Your task to perform on an android device: uninstall "Google Find My Device" Image 0: 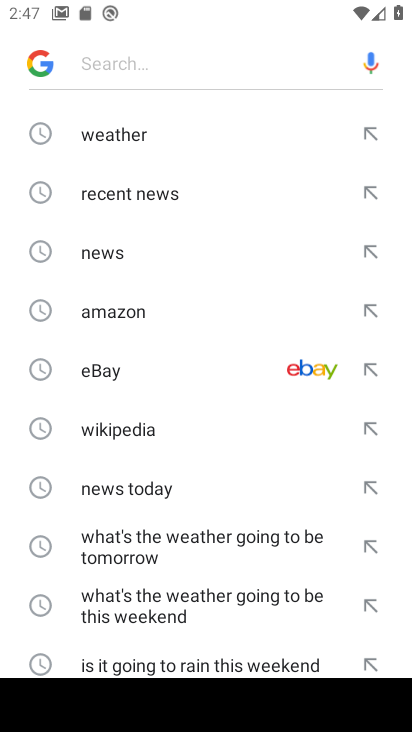
Step 0: press back button
Your task to perform on an android device: uninstall "Google Find My Device" Image 1: 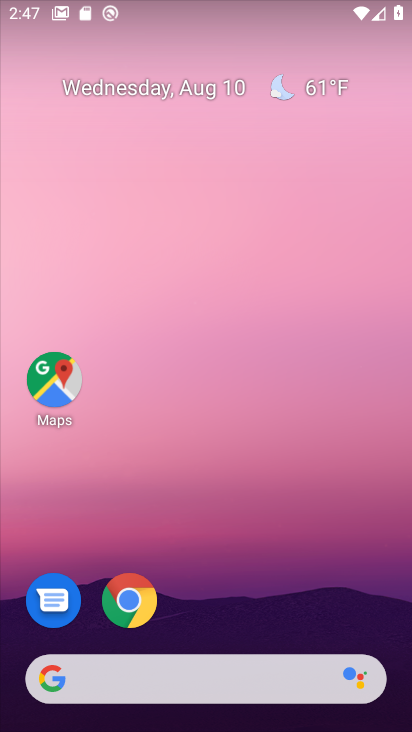
Step 1: drag from (246, 610) to (267, 63)
Your task to perform on an android device: uninstall "Google Find My Device" Image 2: 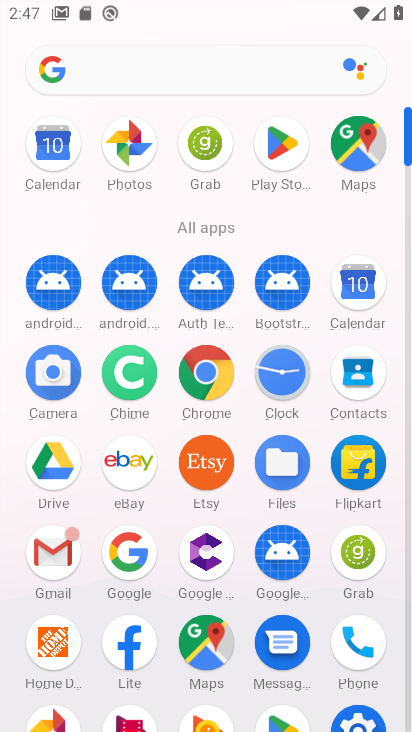
Step 2: click (272, 140)
Your task to perform on an android device: uninstall "Google Find My Device" Image 3: 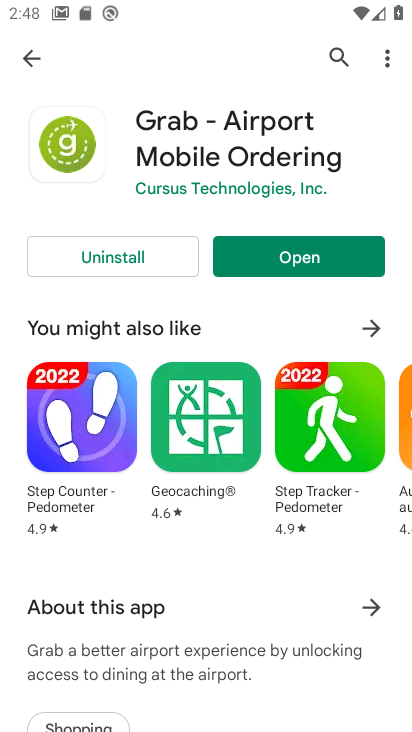
Step 3: click (329, 53)
Your task to perform on an android device: uninstall "Google Find My Device" Image 4: 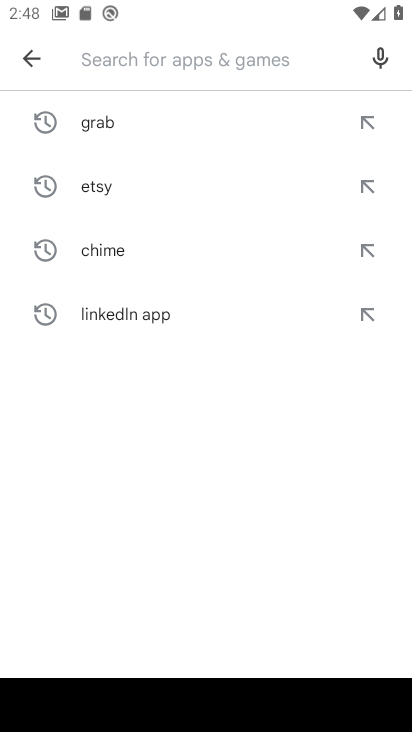
Step 4: click (141, 57)
Your task to perform on an android device: uninstall "Google Find My Device" Image 5: 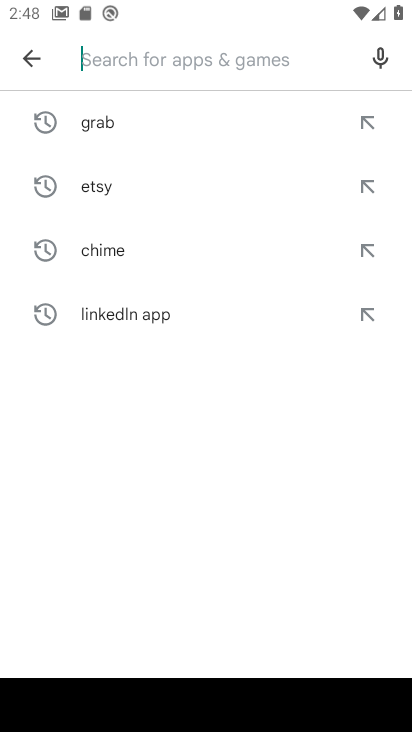
Step 5: type "Google Find My Device"
Your task to perform on an android device: uninstall "Google Find My Device" Image 6: 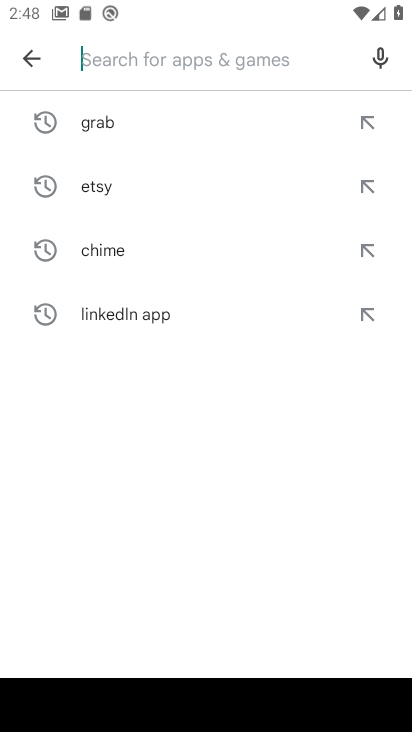
Step 6: click (171, 462)
Your task to perform on an android device: uninstall "Google Find My Device" Image 7: 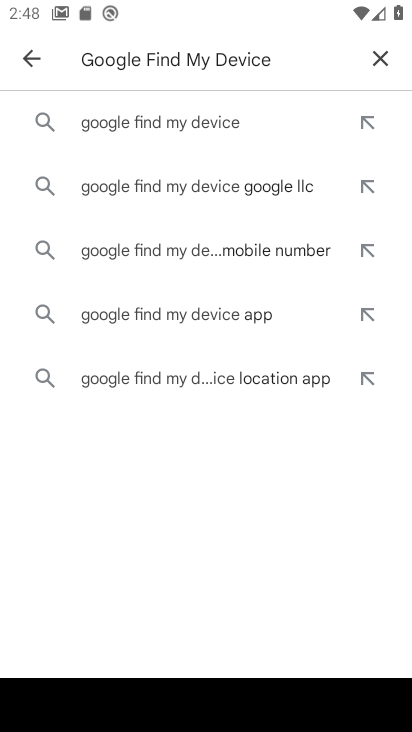
Step 7: click (183, 121)
Your task to perform on an android device: uninstall "Google Find My Device" Image 8: 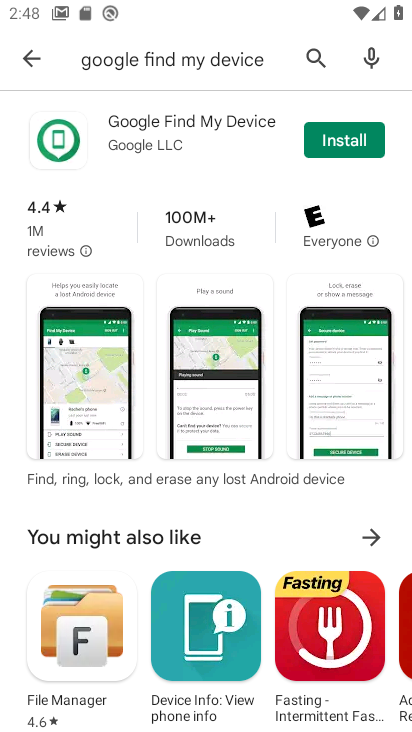
Step 8: task complete